Your task to perform on an android device: Set the phone to "Do not disturb". Image 0: 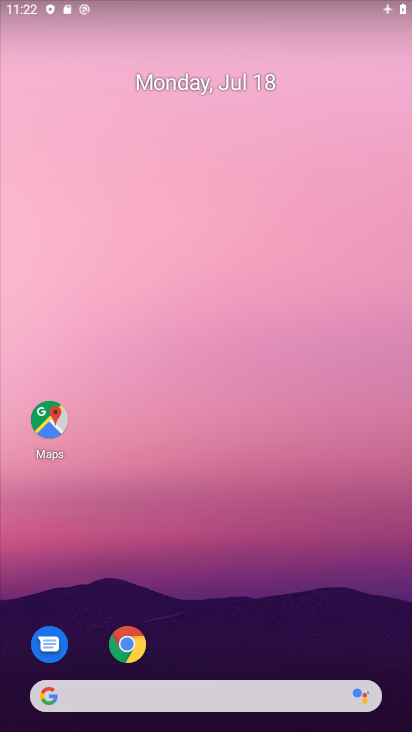
Step 0: drag from (298, 7) to (288, 547)
Your task to perform on an android device: Set the phone to "Do not disturb". Image 1: 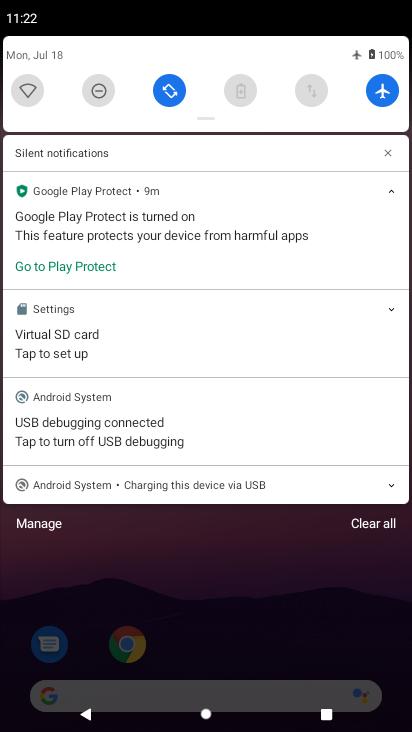
Step 1: click (88, 77)
Your task to perform on an android device: Set the phone to "Do not disturb". Image 2: 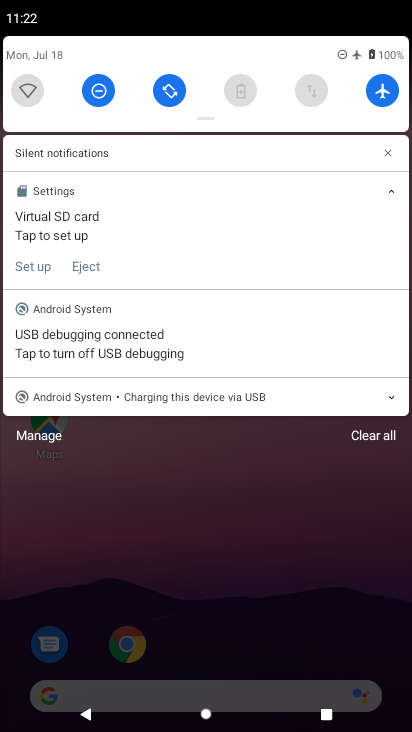
Step 2: task complete